Your task to perform on an android device: toggle notifications settings in the gmail app Image 0: 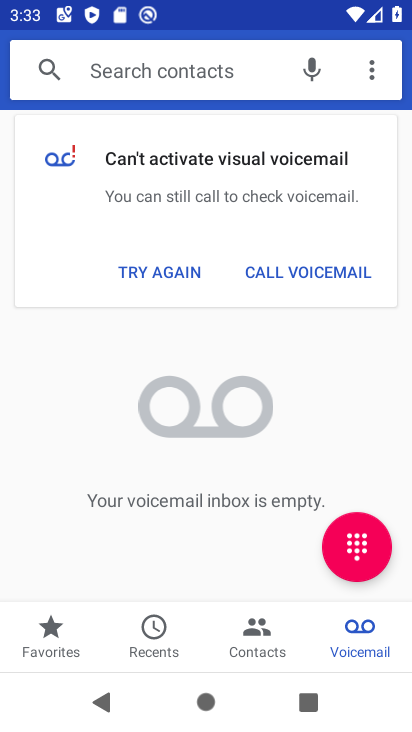
Step 0: press home button
Your task to perform on an android device: toggle notifications settings in the gmail app Image 1: 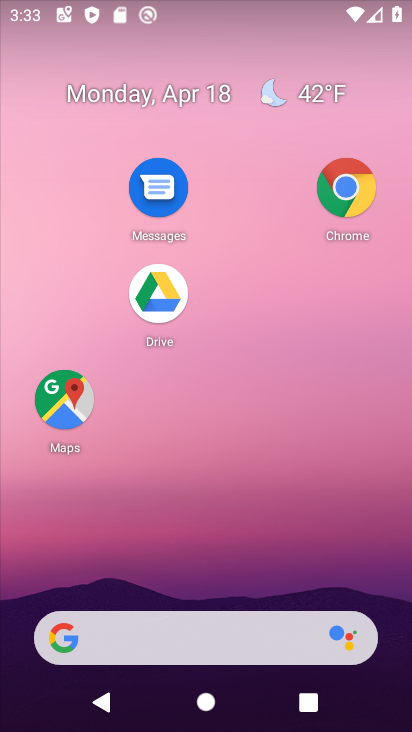
Step 1: drag from (168, 585) to (244, 110)
Your task to perform on an android device: toggle notifications settings in the gmail app Image 2: 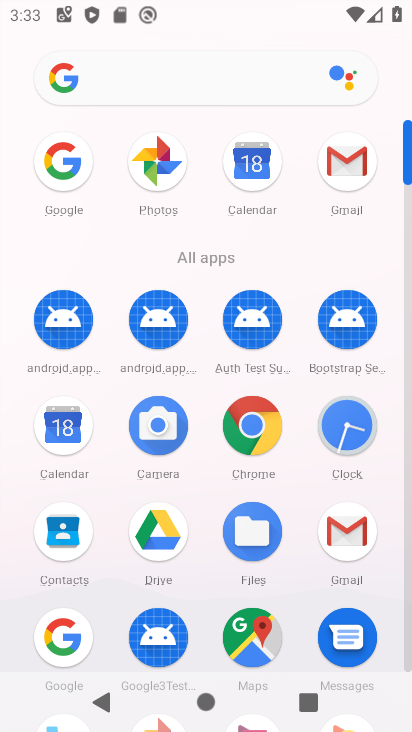
Step 2: drag from (297, 498) to (299, 382)
Your task to perform on an android device: toggle notifications settings in the gmail app Image 3: 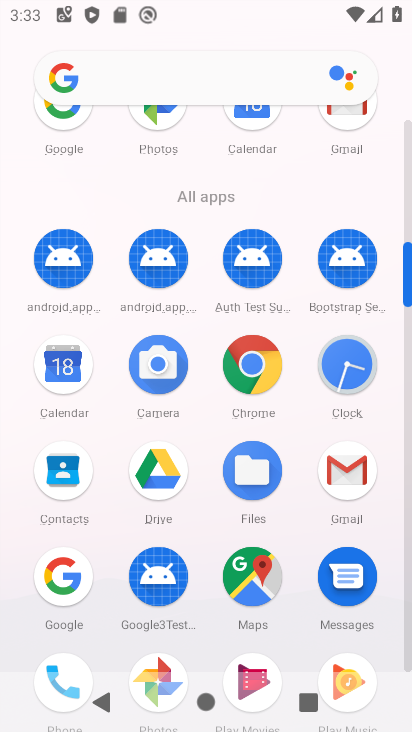
Step 3: click (353, 470)
Your task to perform on an android device: toggle notifications settings in the gmail app Image 4: 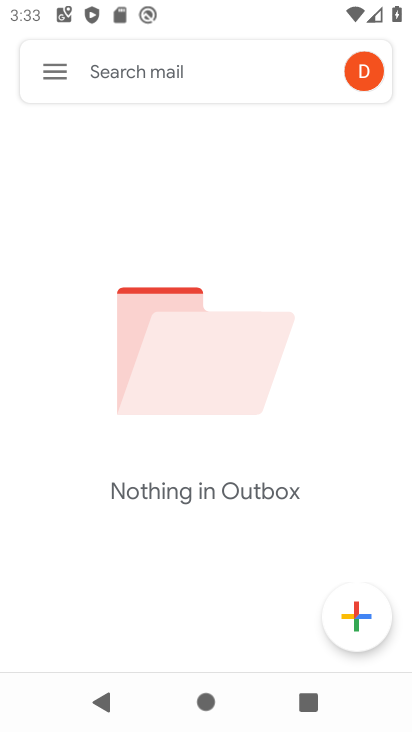
Step 4: click (55, 73)
Your task to perform on an android device: toggle notifications settings in the gmail app Image 5: 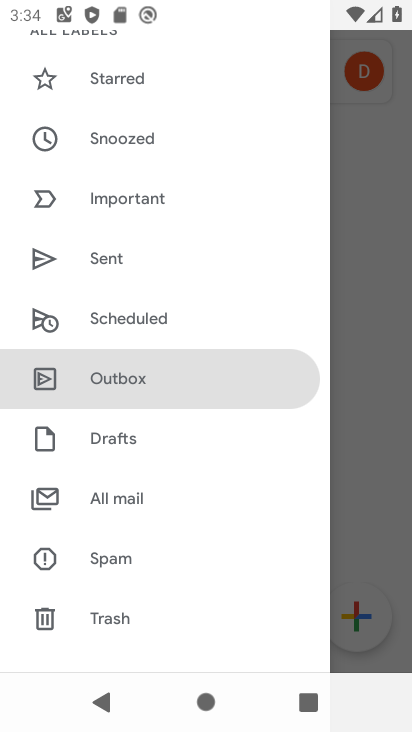
Step 5: drag from (151, 534) to (160, 377)
Your task to perform on an android device: toggle notifications settings in the gmail app Image 6: 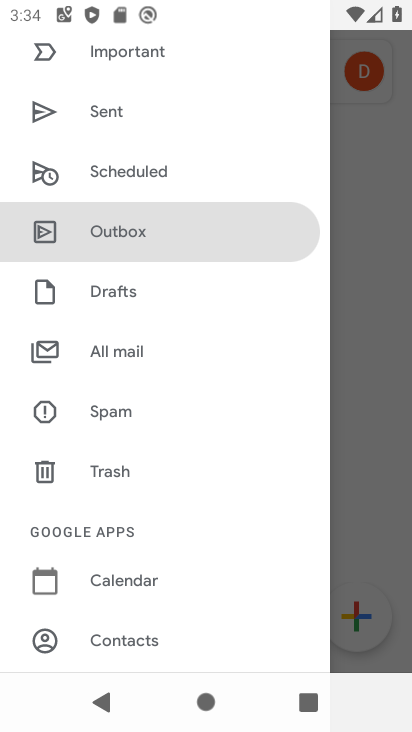
Step 6: drag from (168, 503) to (178, 407)
Your task to perform on an android device: toggle notifications settings in the gmail app Image 7: 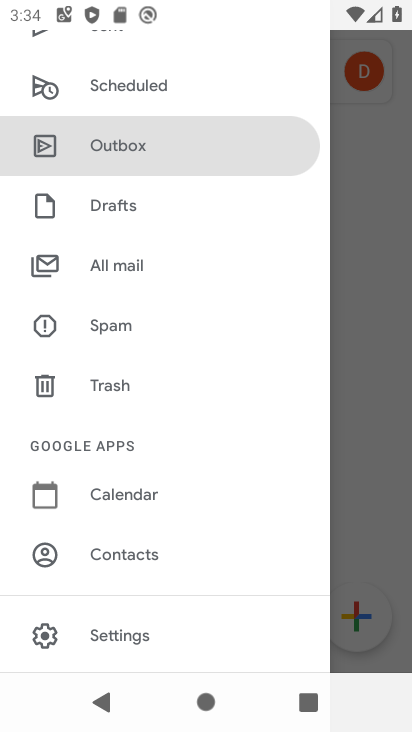
Step 7: click (121, 629)
Your task to perform on an android device: toggle notifications settings in the gmail app Image 8: 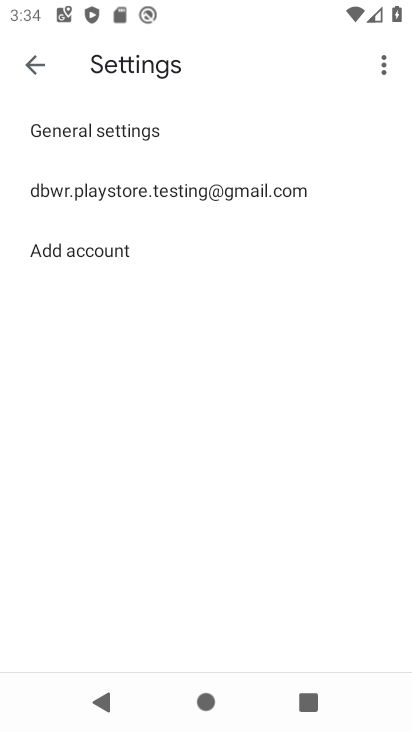
Step 8: click (166, 194)
Your task to perform on an android device: toggle notifications settings in the gmail app Image 9: 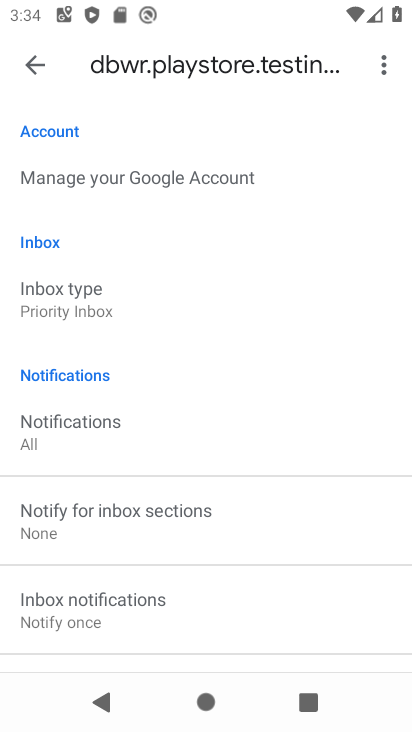
Step 9: drag from (129, 490) to (172, 402)
Your task to perform on an android device: toggle notifications settings in the gmail app Image 10: 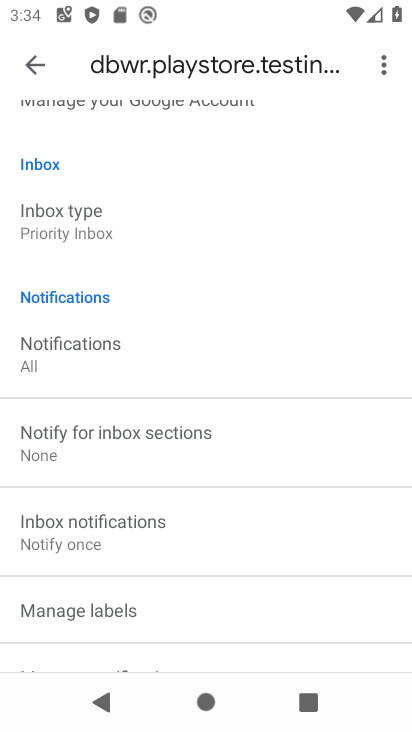
Step 10: drag from (142, 569) to (167, 466)
Your task to perform on an android device: toggle notifications settings in the gmail app Image 11: 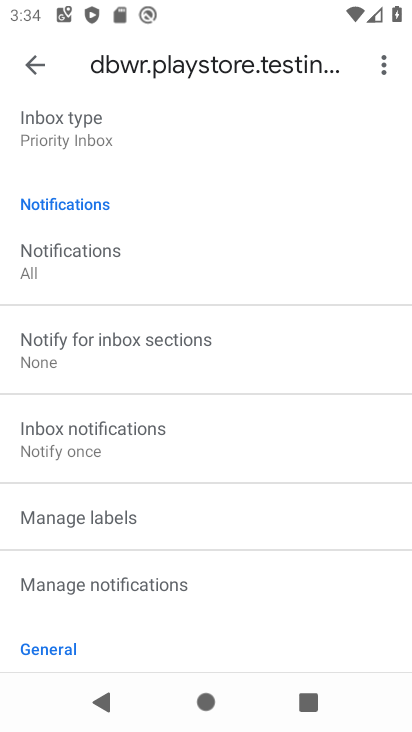
Step 11: drag from (147, 550) to (160, 460)
Your task to perform on an android device: toggle notifications settings in the gmail app Image 12: 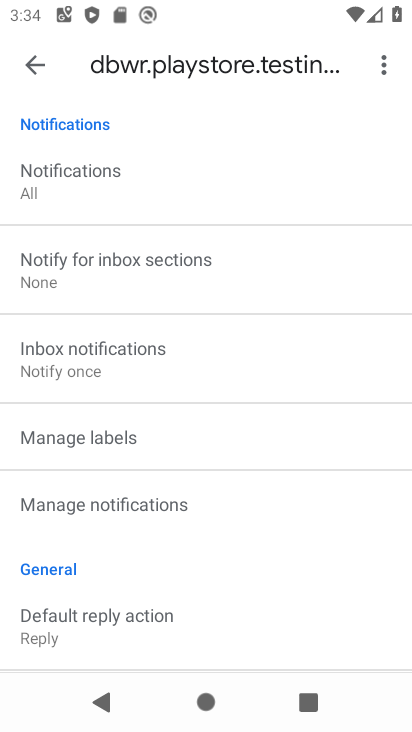
Step 12: click (105, 511)
Your task to perform on an android device: toggle notifications settings in the gmail app Image 13: 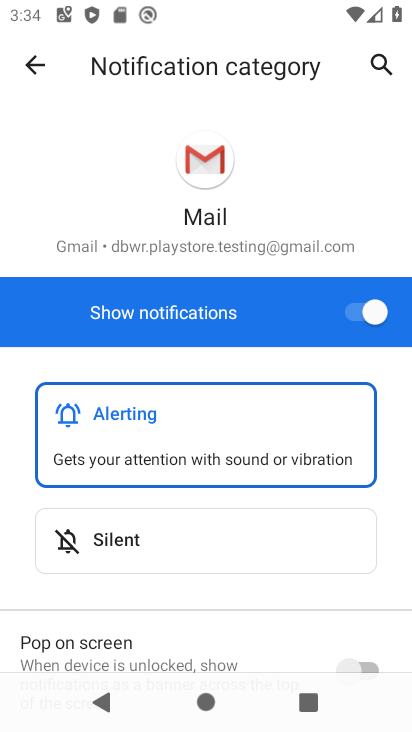
Step 13: click (395, 321)
Your task to perform on an android device: toggle notifications settings in the gmail app Image 14: 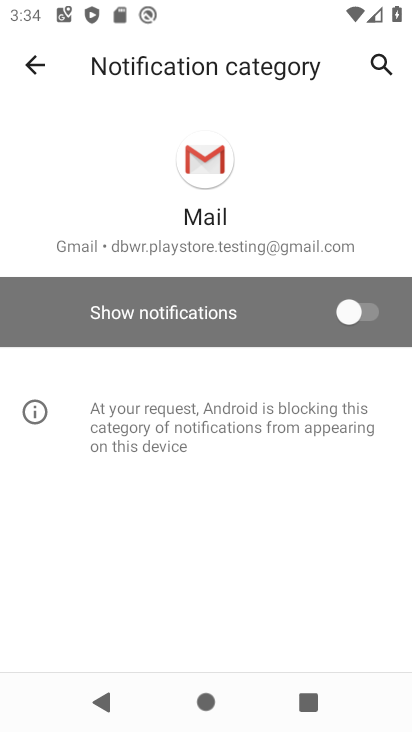
Step 14: task complete